Your task to perform on an android device: remove spam from my inbox in the gmail app Image 0: 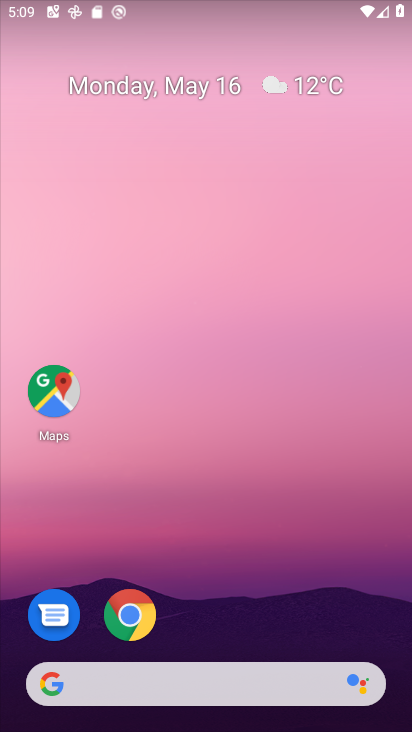
Step 0: drag from (237, 615) to (319, 0)
Your task to perform on an android device: remove spam from my inbox in the gmail app Image 1: 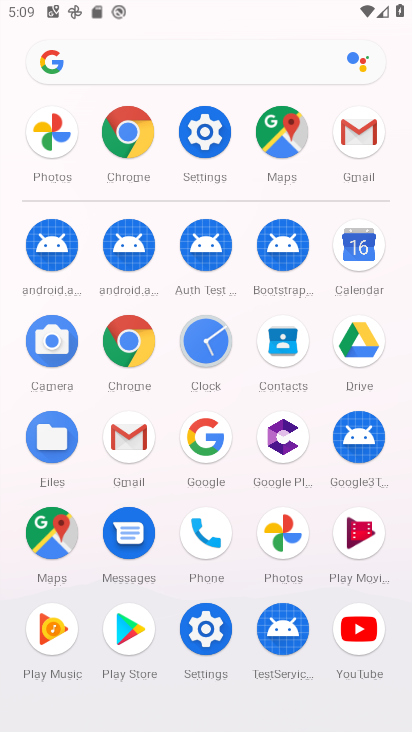
Step 1: click (366, 143)
Your task to perform on an android device: remove spam from my inbox in the gmail app Image 2: 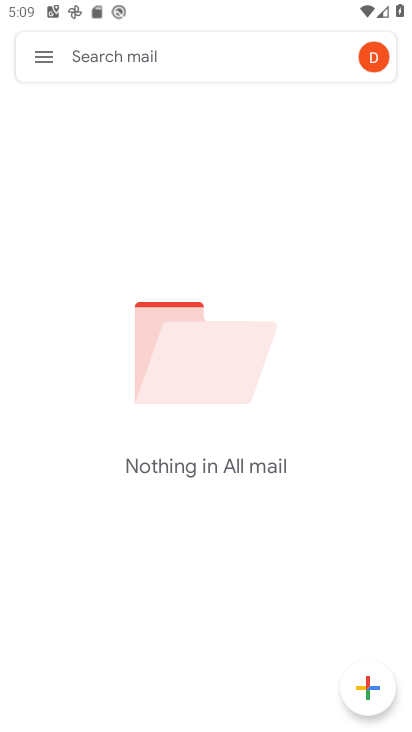
Step 2: click (39, 56)
Your task to perform on an android device: remove spam from my inbox in the gmail app Image 3: 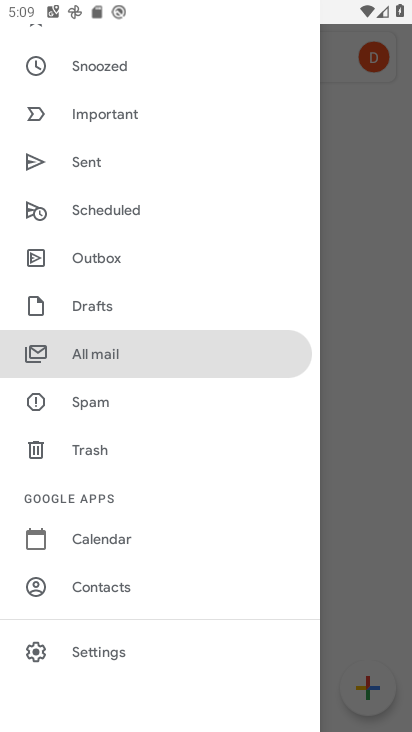
Step 3: click (105, 401)
Your task to perform on an android device: remove spam from my inbox in the gmail app Image 4: 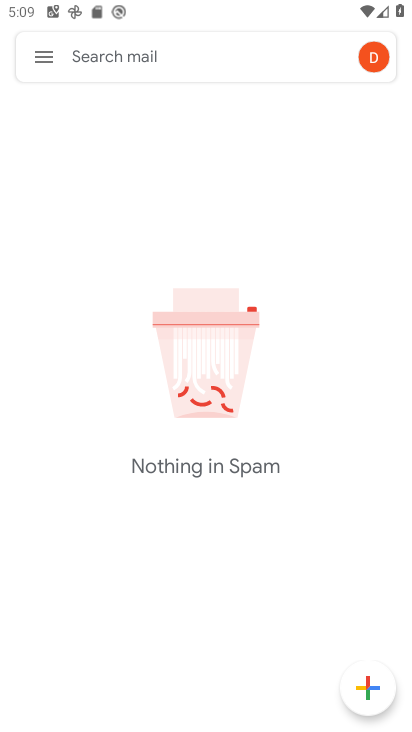
Step 4: task complete